Your task to perform on an android device: Open the map Image 0: 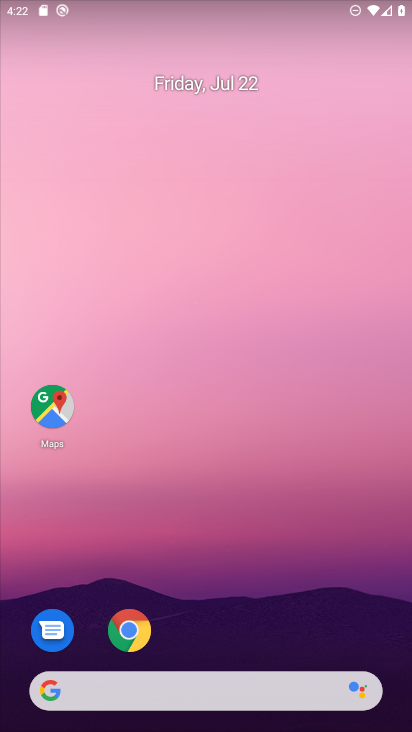
Step 0: click (43, 390)
Your task to perform on an android device: Open the map Image 1: 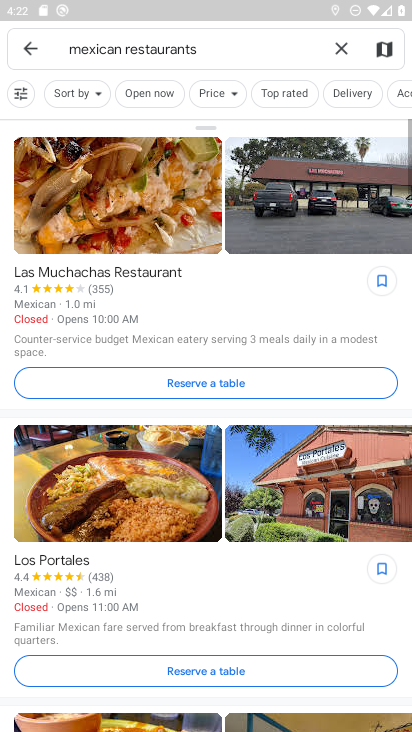
Step 1: click (26, 57)
Your task to perform on an android device: Open the map Image 2: 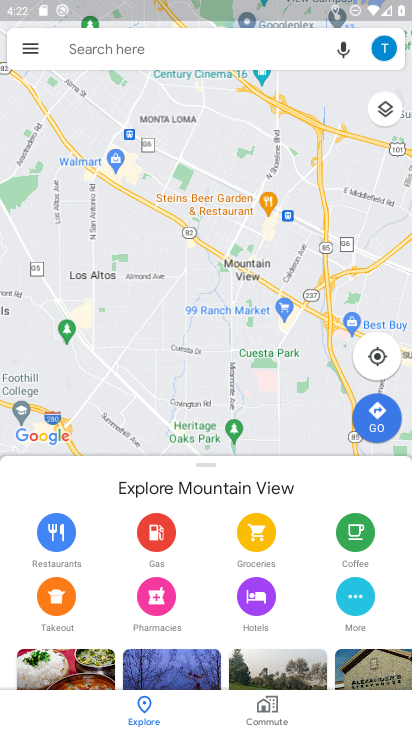
Step 2: task complete